Your task to perform on an android device: change keyboard looks Image 0: 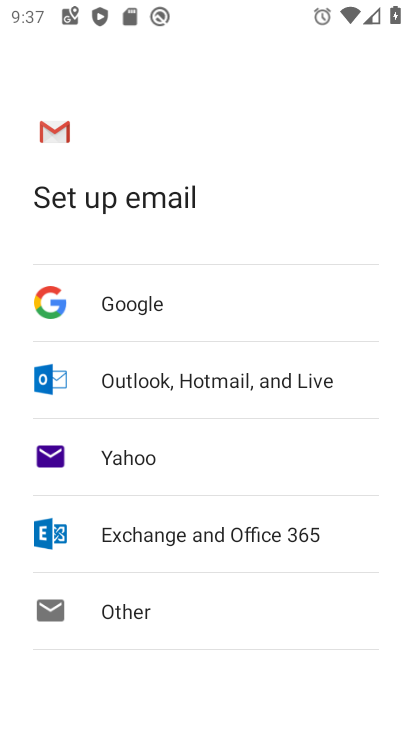
Step 0: press back button
Your task to perform on an android device: change keyboard looks Image 1: 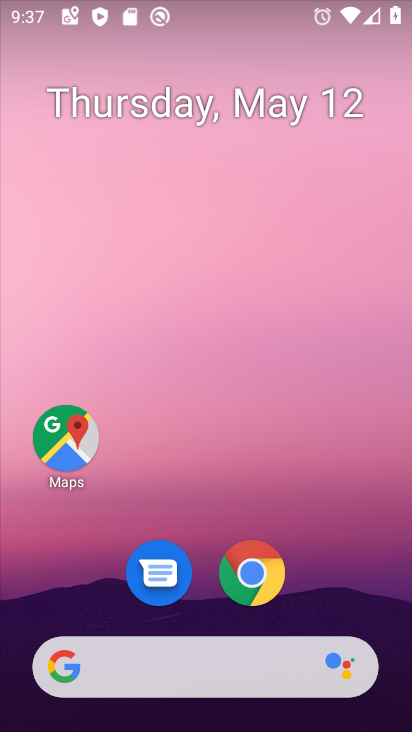
Step 1: drag from (340, 583) to (306, 172)
Your task to perform on an android device: change keyboard looks Image 2: 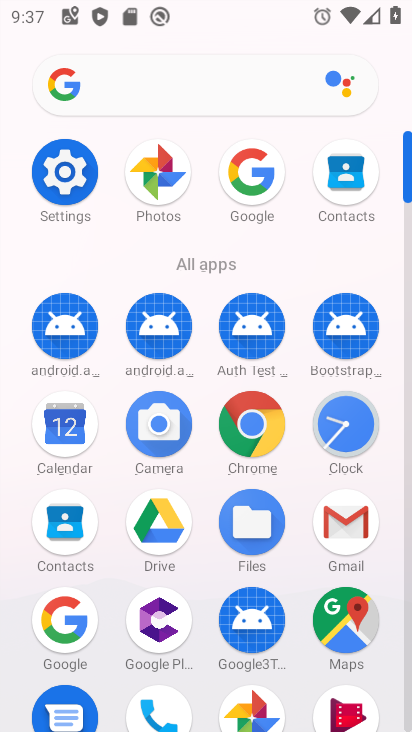
Step 2: click (65, 172)
Your task to perform on an android device: change keyboard looks Image 3: 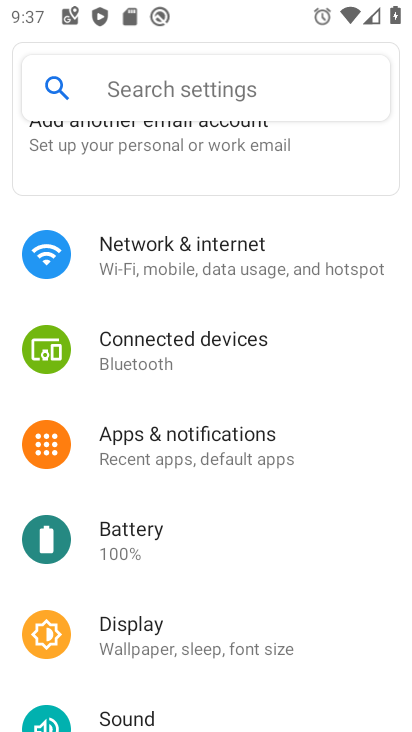
Step 3: drag from (196, 468) to (218, 246)
Your task to perform on an android device: change keyboard looks Image 4: 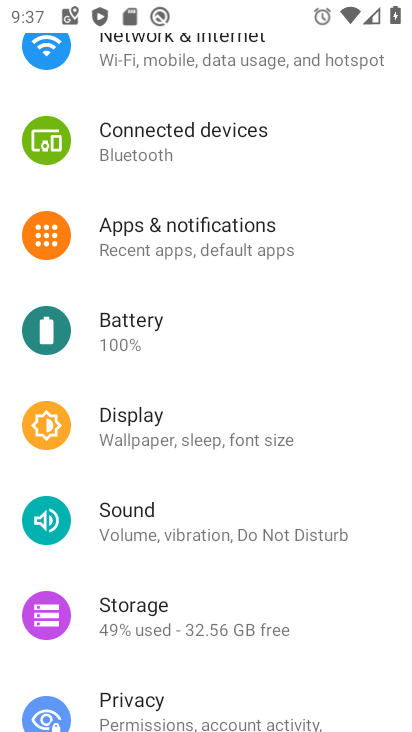
Step 4: drag from (211, 403) to (199, 208)
Your task to perform on an android device: change keyboard looks Image 5: 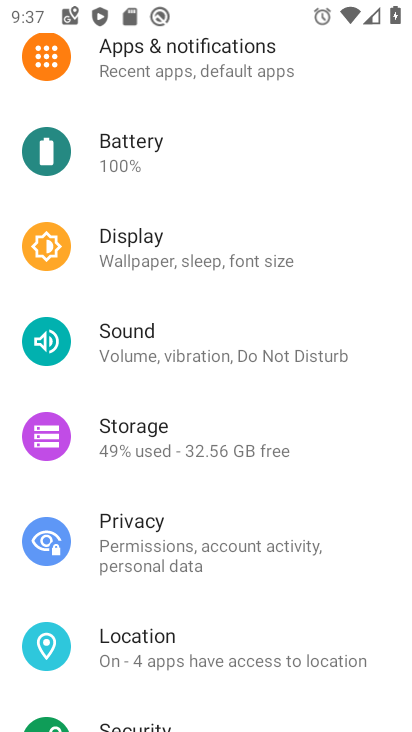
Step 5: drag from (195, 398) to (198, 238)
Your task to perform on an android device: change keyboard looks Image 6: 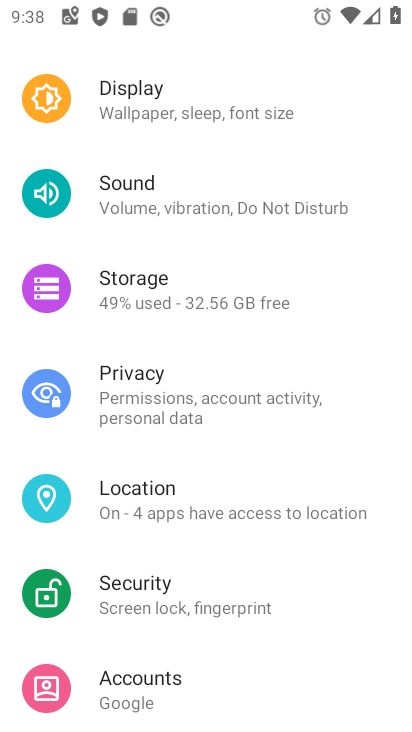
Step 6: drag from (175, 352) to (183, 192)
Your task to perform on an android device: change keyboard looks Image 7: 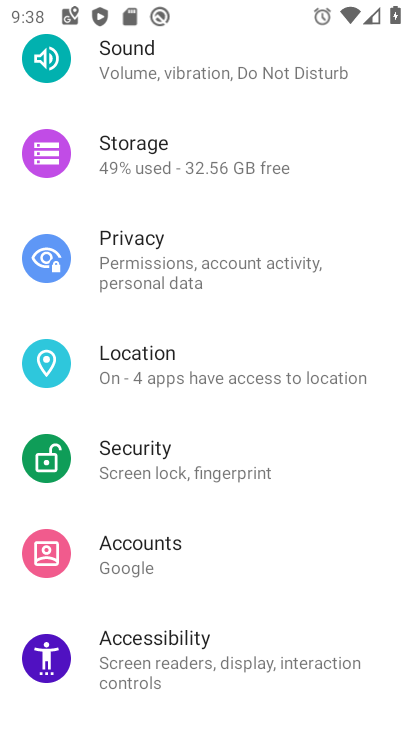
Step 7: drag from (154, 506) to (216, 339)
Your task to perform on an android device: change keyboard looks Image 8: 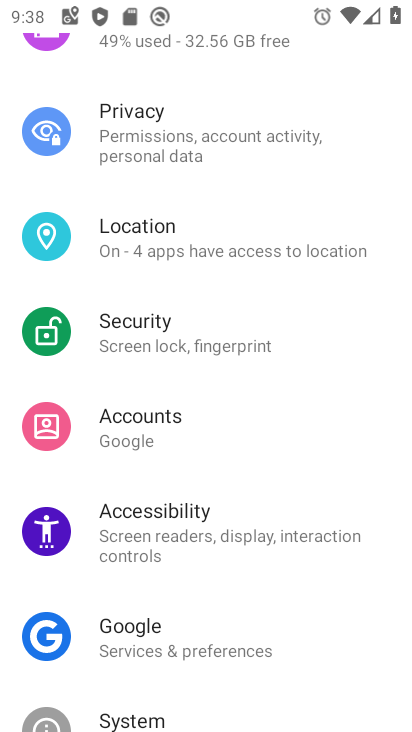
Step 8: drag from (149, 474) to (248, 315)
Your task to perform on an android device: change keyboard looks Image 9: 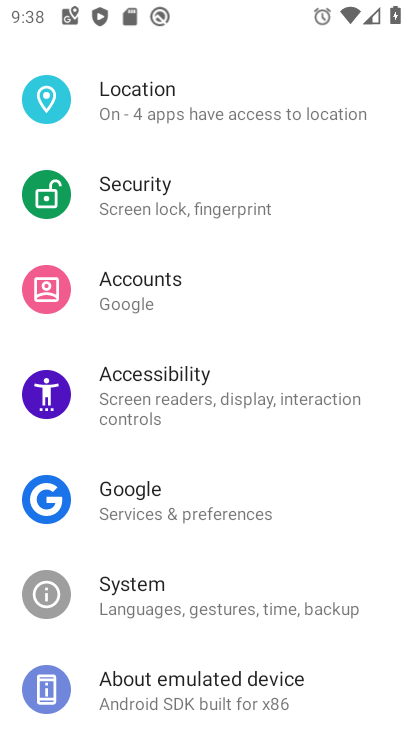
Step 9: drag from (157, 445) to (237, 318)
Your task to perform on an android device: change keyboard looks Image 10: 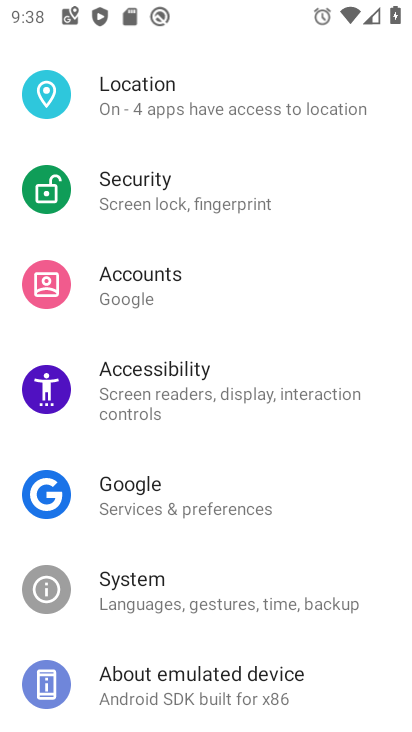
Step 10: click (134, 580)
Your task to perform on an android device: change keyboard looks Image 11: 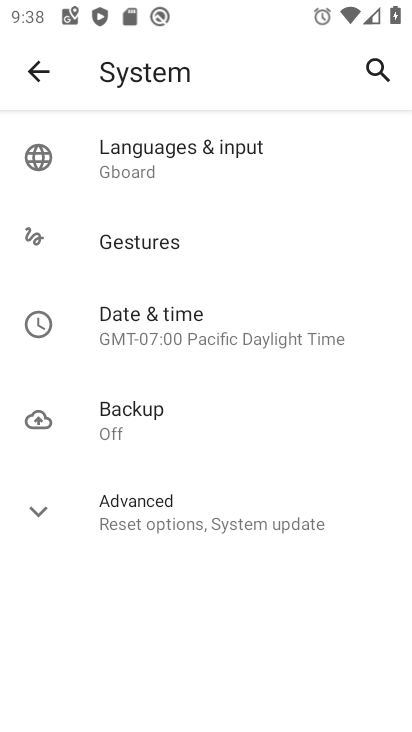
Step 11: click (156, 148)
Your task to perform on an android device: change keyboard looks Image 12: 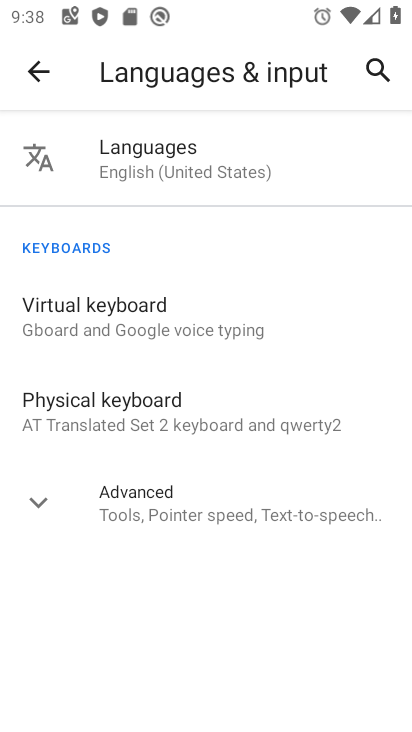
Step 12: click (132, 323)
Your task to perform on an android device: change keyboard looks Image 13: 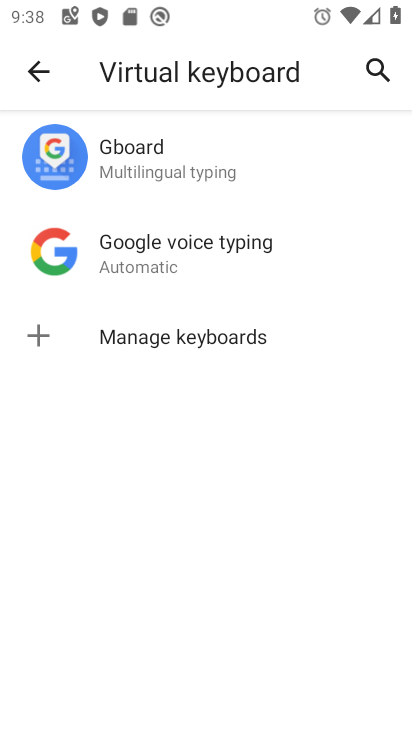
Step 13: click (162, 155)
Your task to perform on an android device: change keyboard looks Image 14: 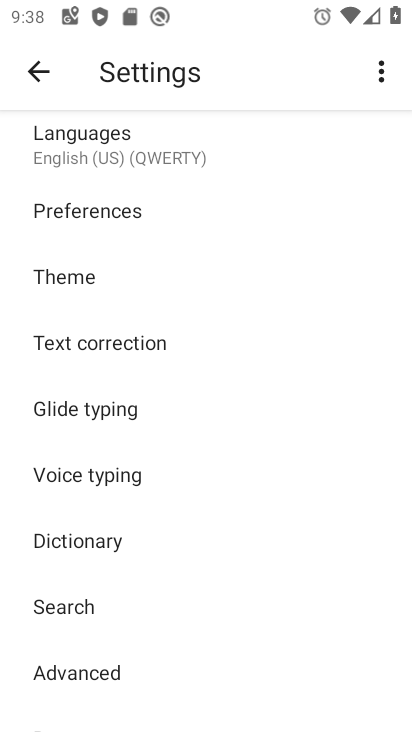
Step 14: click (72, 278)
Your task to perform on an android device: change keyboard looks Image 15: 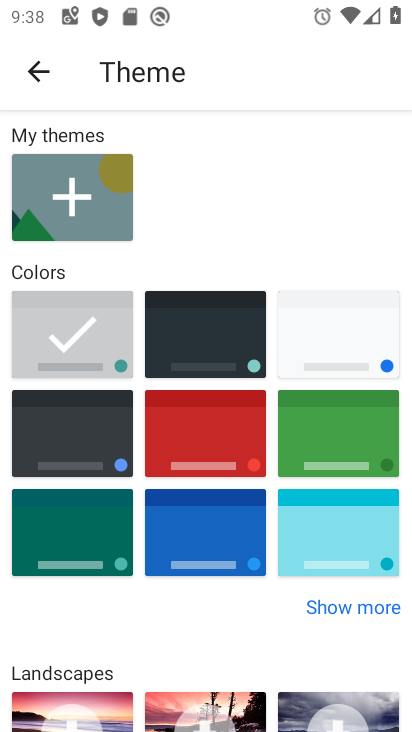
Step 15: click (219, 523)
Your task to perform on an android device: change keyboard looks Image 16: 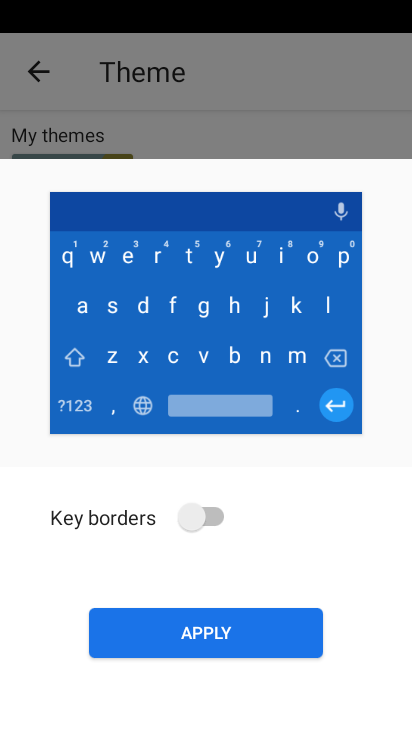
Step 16: click (193, 520)
Your task to perform on an android device: change keyboard looks Image 17: 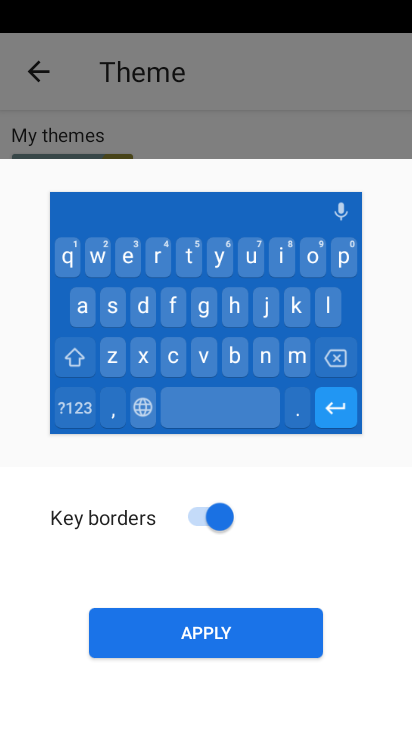
Step 17: click (222, 625)
Your task to perform on an android device: change keyboard looks Image 18: 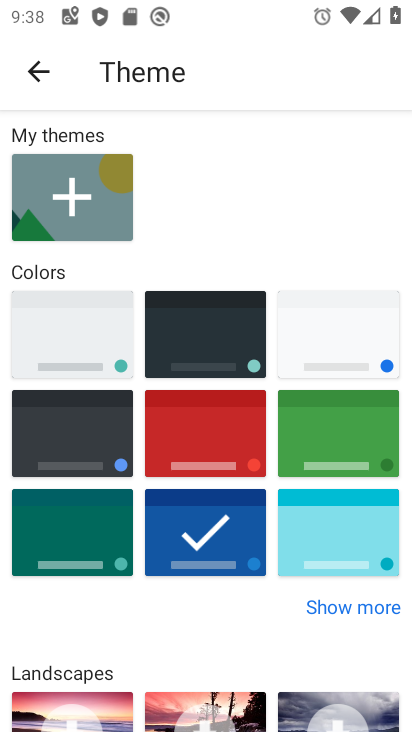
Step 18: task complete